Your task to perform on an android device: change the clock style Image 0: 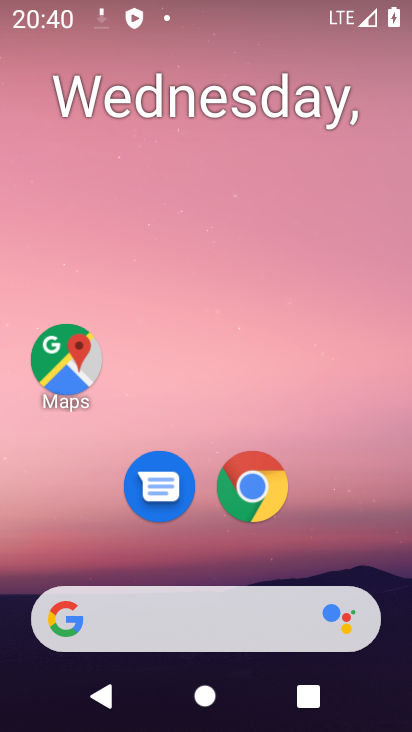
Step 0: drag from (162, 557) to (261, 0)
Your task to perform on an android device: change the clock style Image 1: 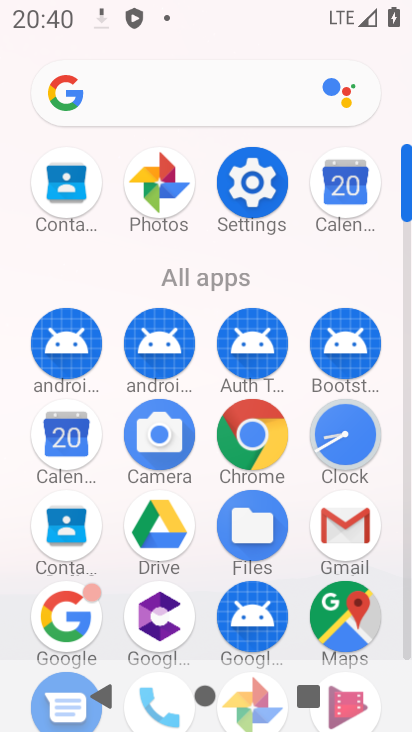
Step 1: click (346, 438)
Your task to perform on an android device: change the clock style Image 2: 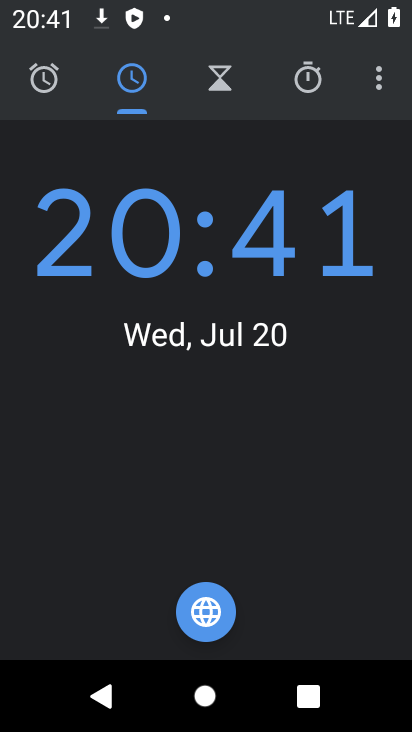
Step 2: click (379, 69)
Your task to perform on an android device: change the clock style Image 3: 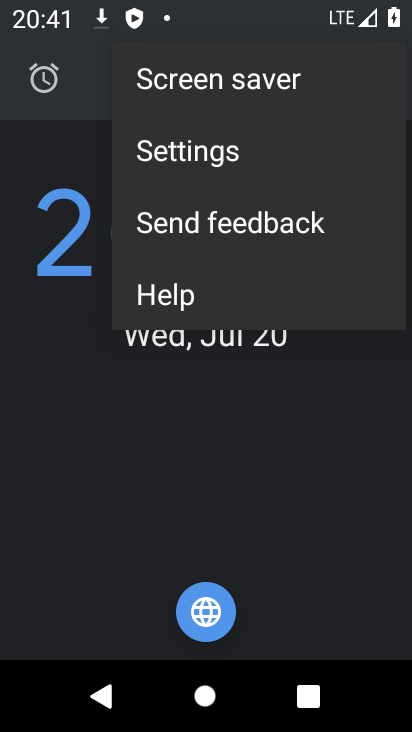
Step 3: click (272, 151)
Your task to perform on an android device: change the clock style Image 4: 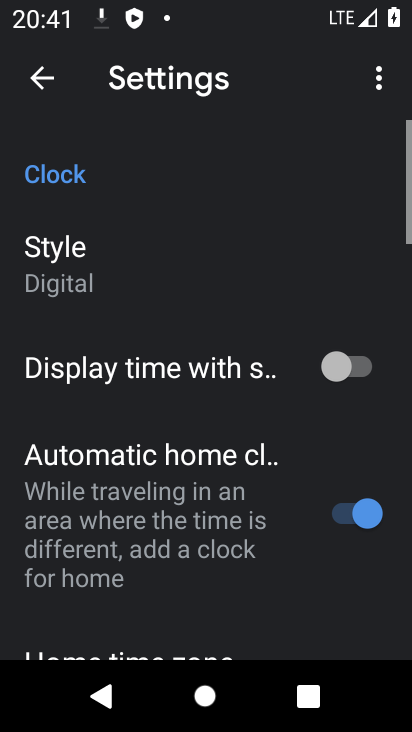
Step 4: click (159, 270)
Your task to perform on an android device: change the clock style Image 5: 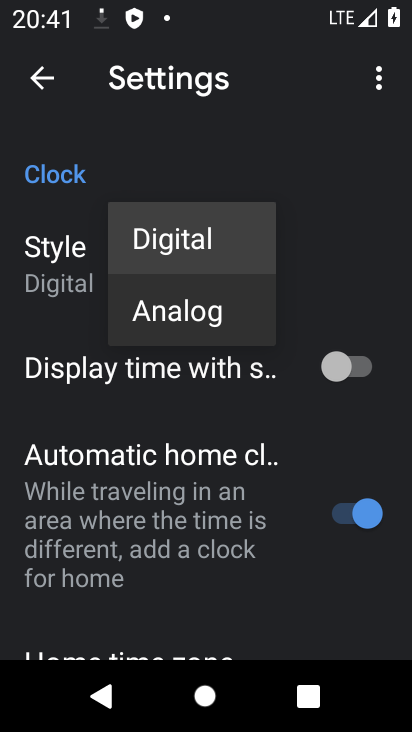
Step 5: click (179, 308)
Your task to perform on an android device: change the clock style Image 6: 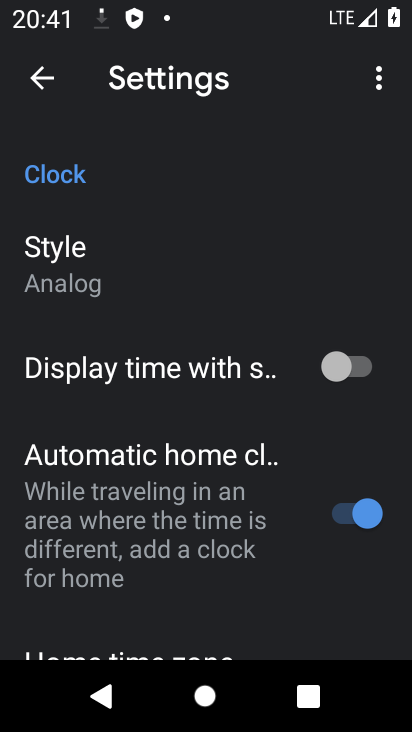
Step 6: task complete